Your task to perform on an android device: Open the calendar and show me this week's events? Image 0: 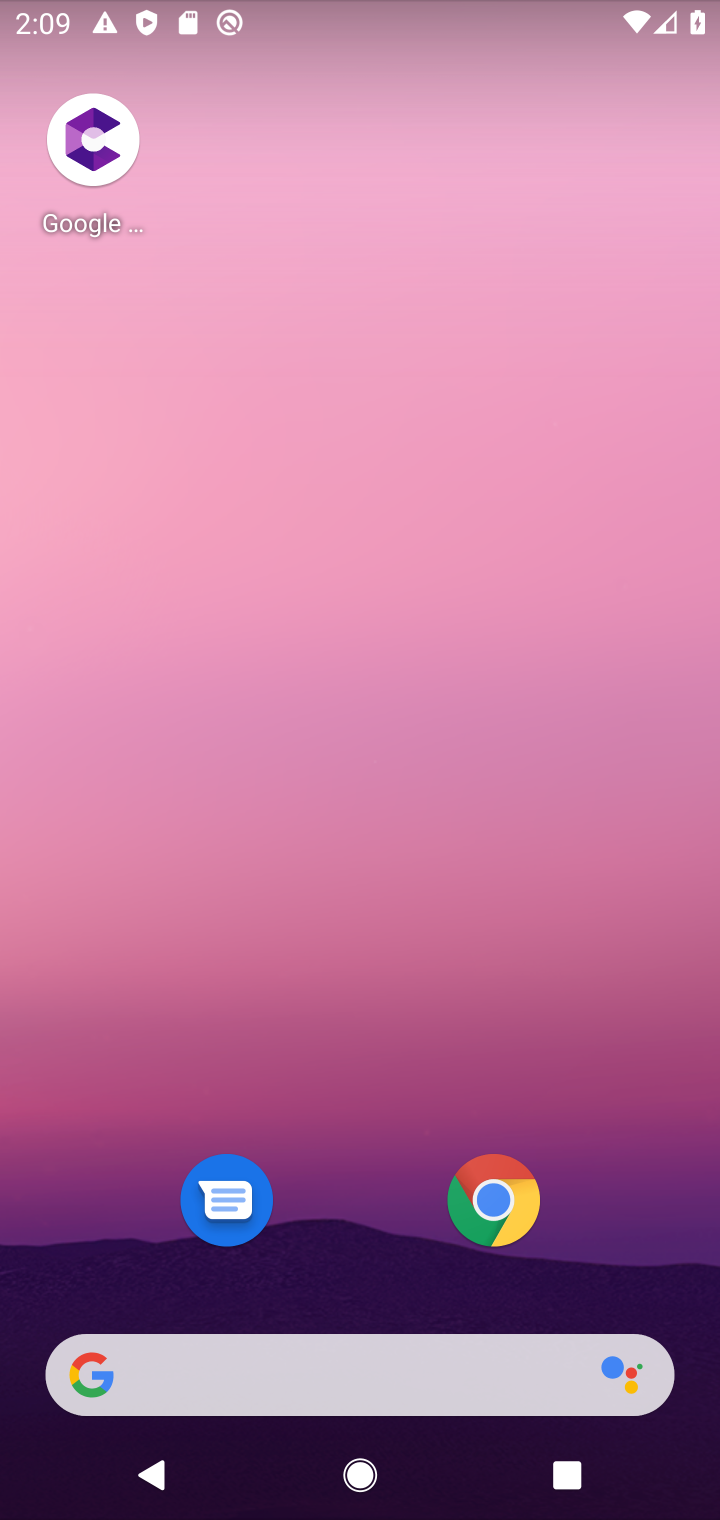
Step 0: drag from (328, 1269) to (444, 176)
Your task to perform on an android device: Open the calendar and show me this week's events? Image 1: 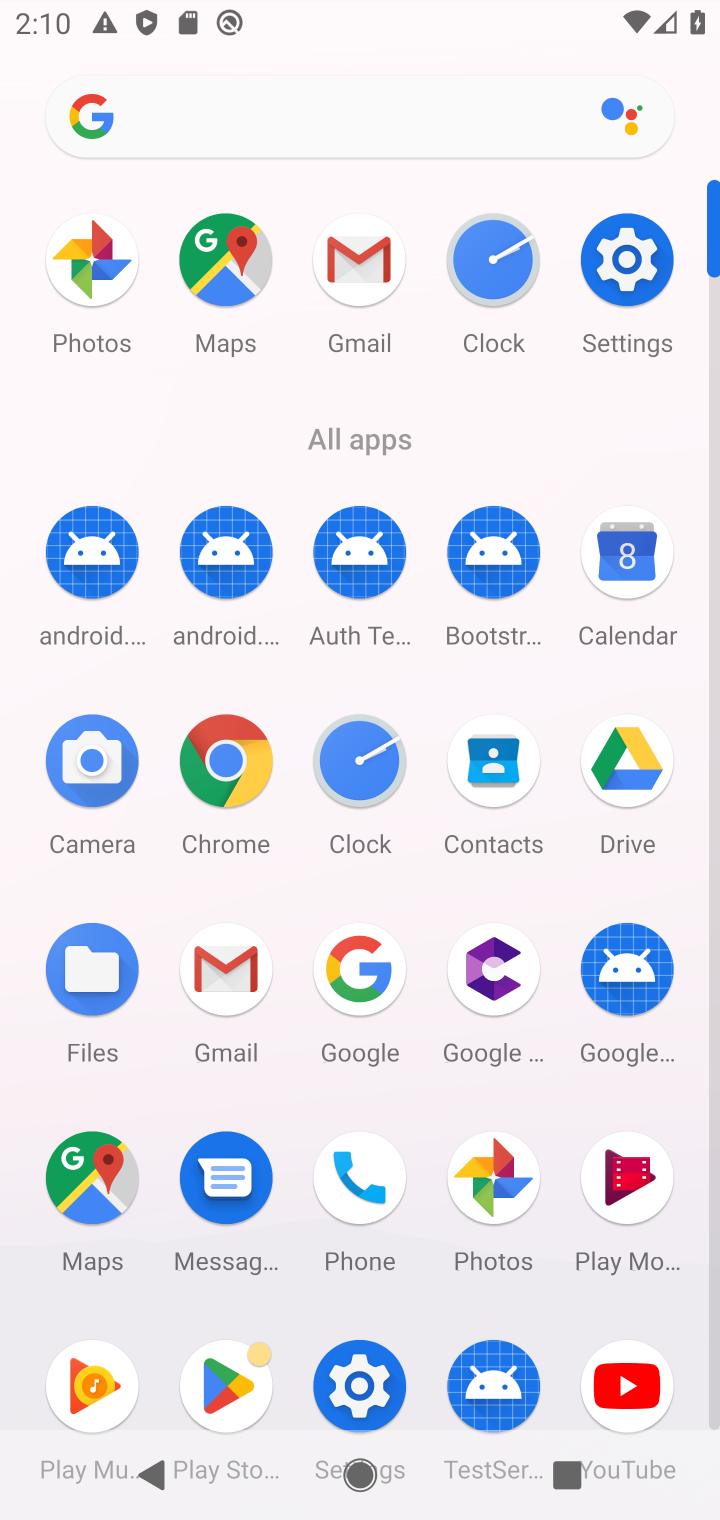
Step 1: click (625, 543)
Your task to perform on an android device: Open the calendar and show me this week's events? Image 2: 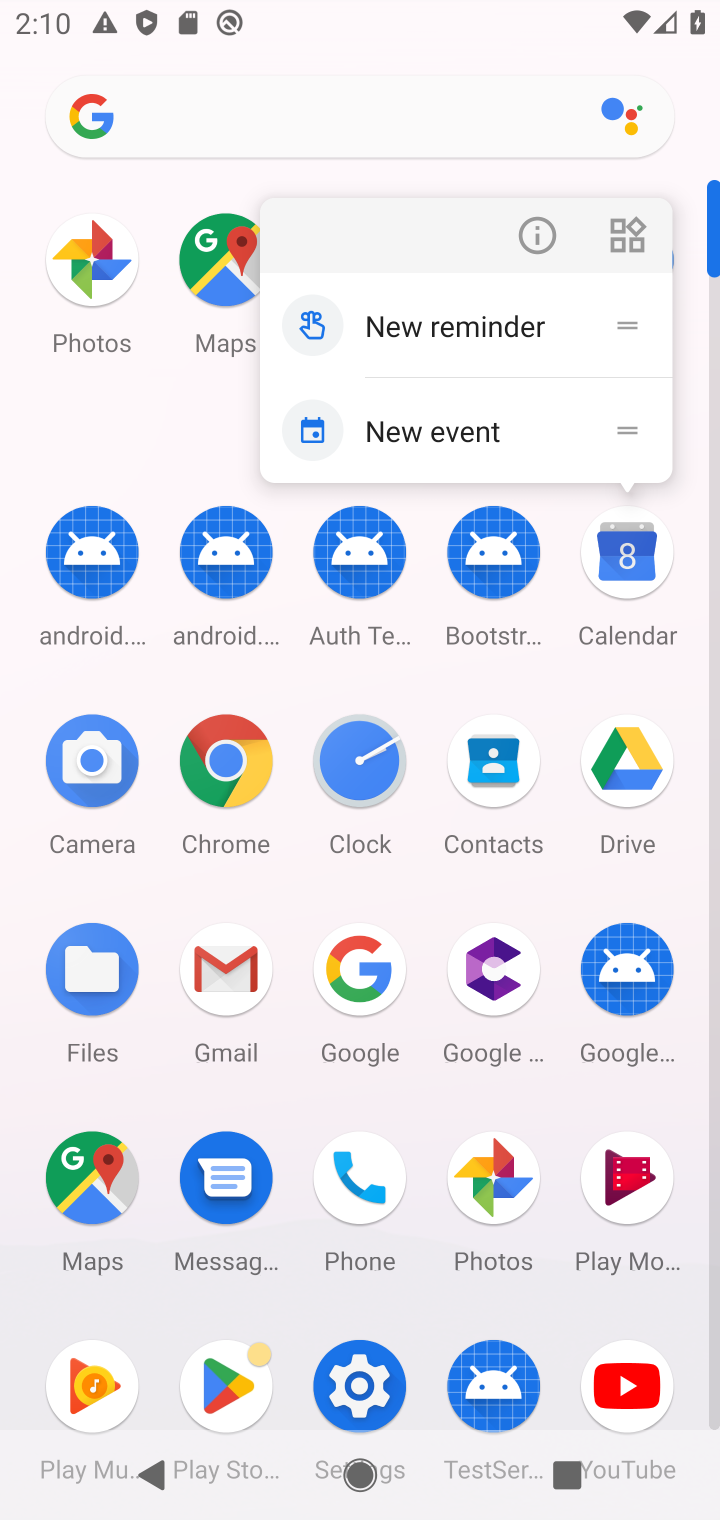
Step 2: click (636, 576)
Your task to perform on an android device: Open the calendar and show me this week's events? Image 3: 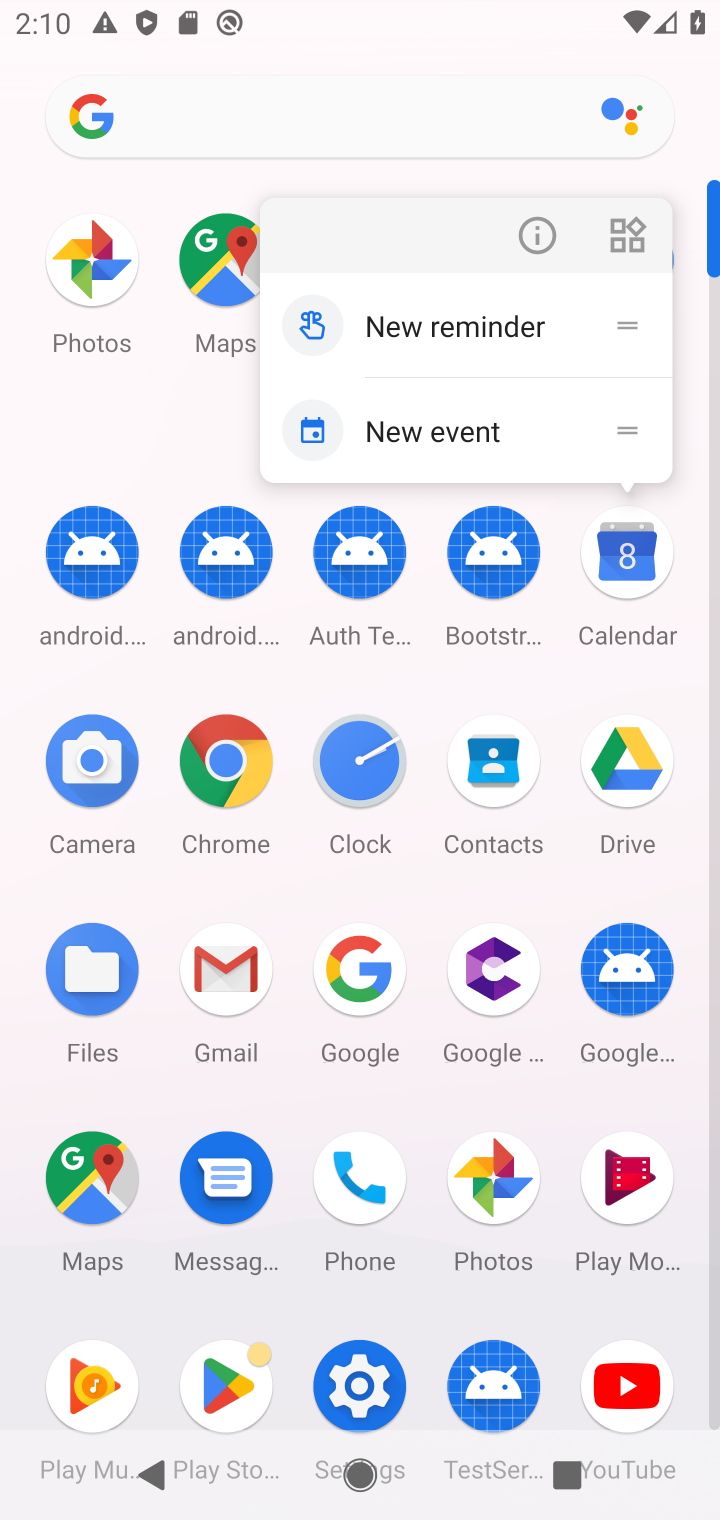
Step 3: click (636, 562)
Your task to perform on an android device: Open the calendar and show me this week's events? Image 4: 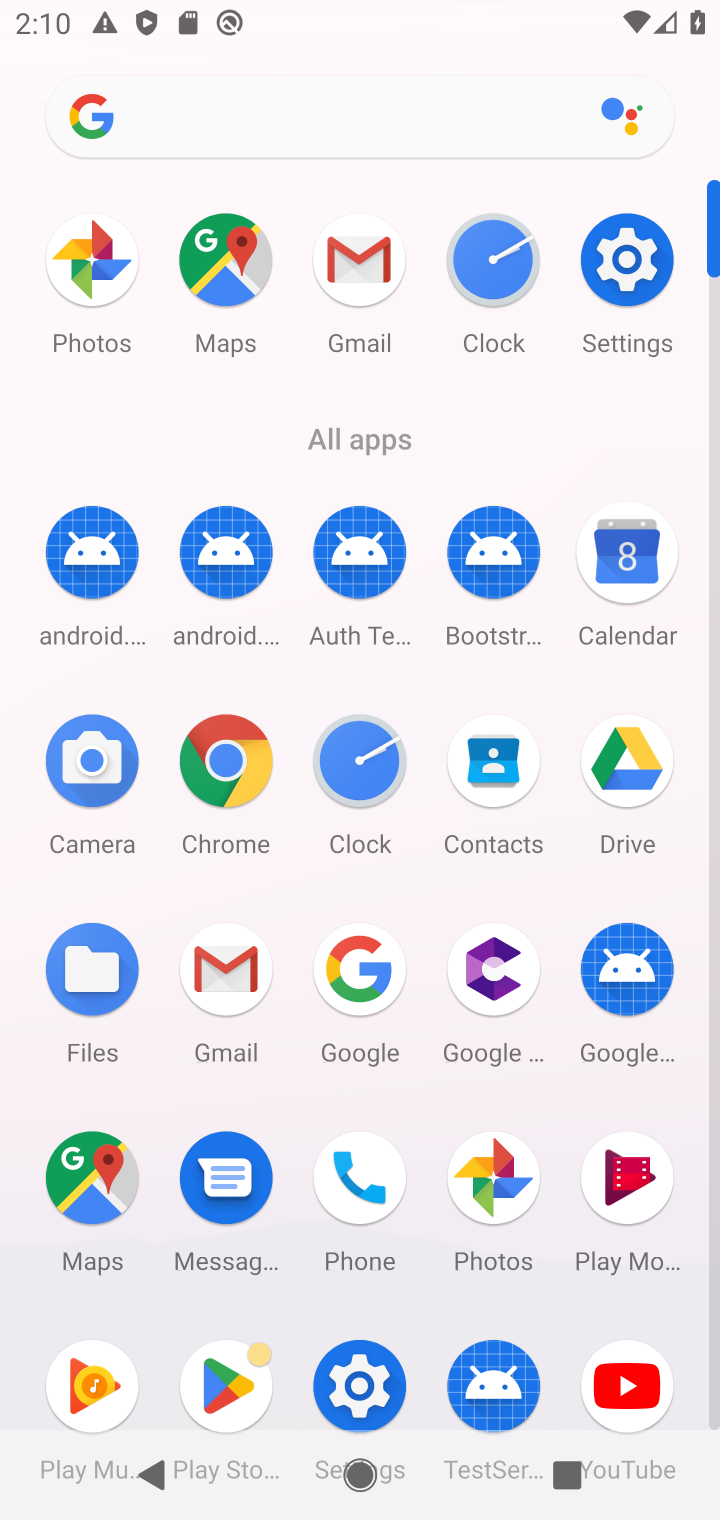
Step 4: click (641, 549)
Your task to perform on an android device: Open the calendar and show me this week's events? Image 5: 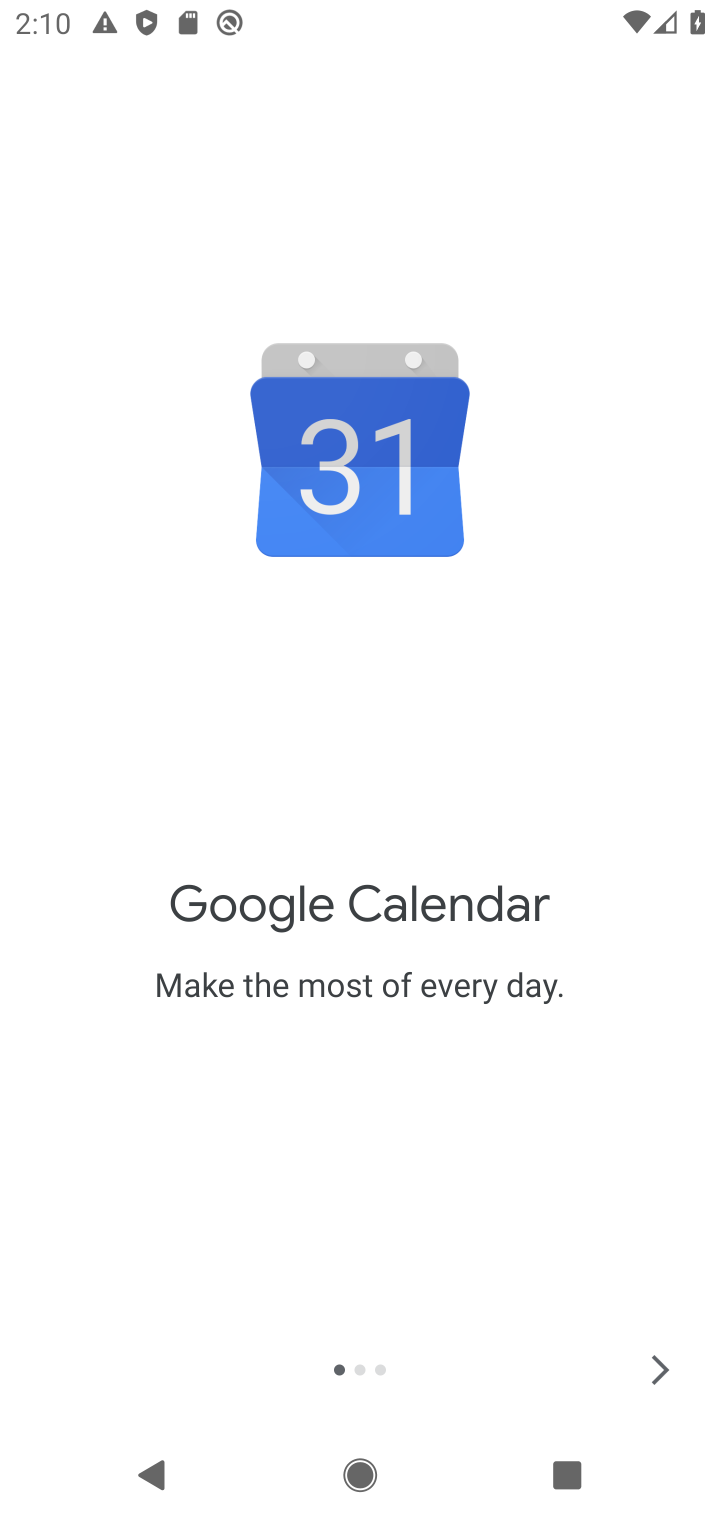
Step 5: click (638, 1371)
Your task to perform on an android device: Open the calendar and show me this week's events? Image 6: 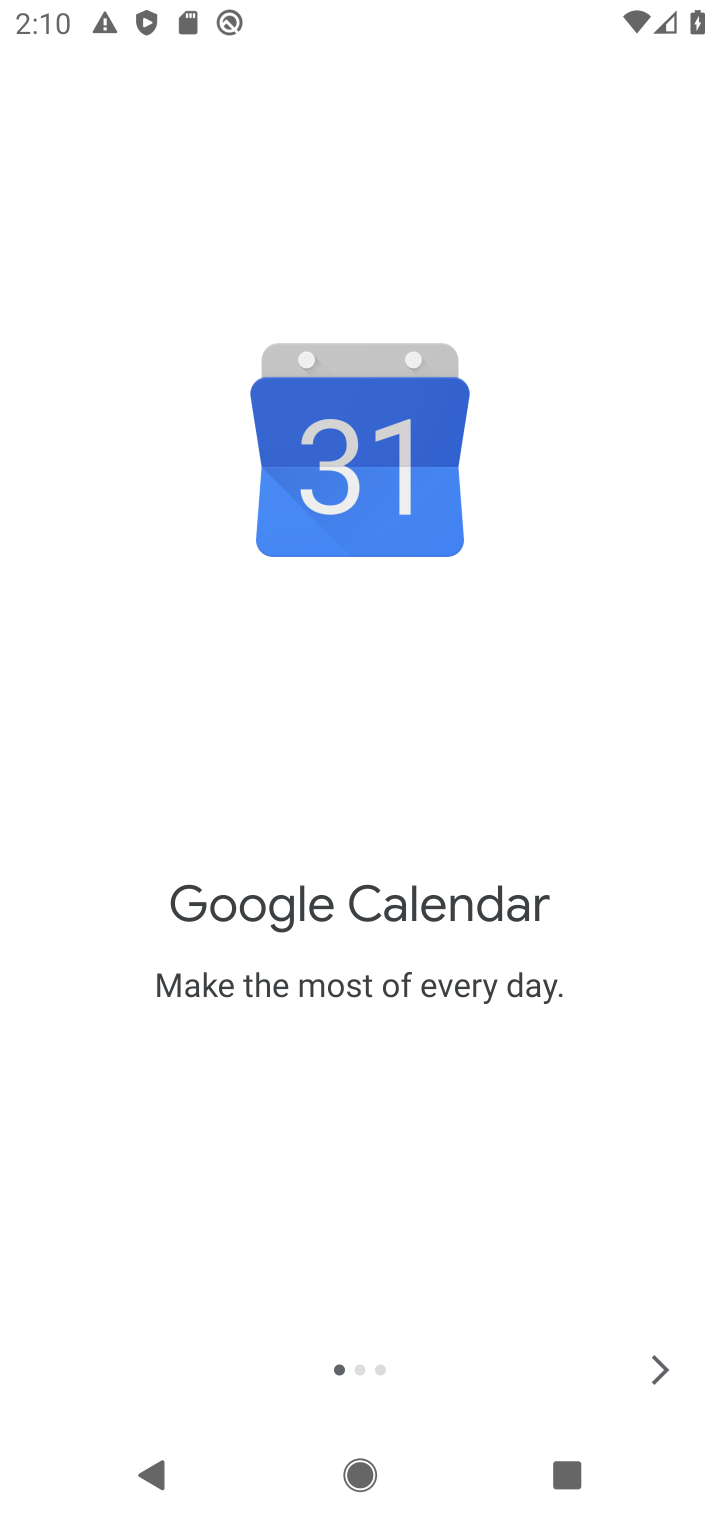
Step 6: click (638, 1371)
Your task to perform on an android device: Open the calendar and show me this week's events? Image 7: 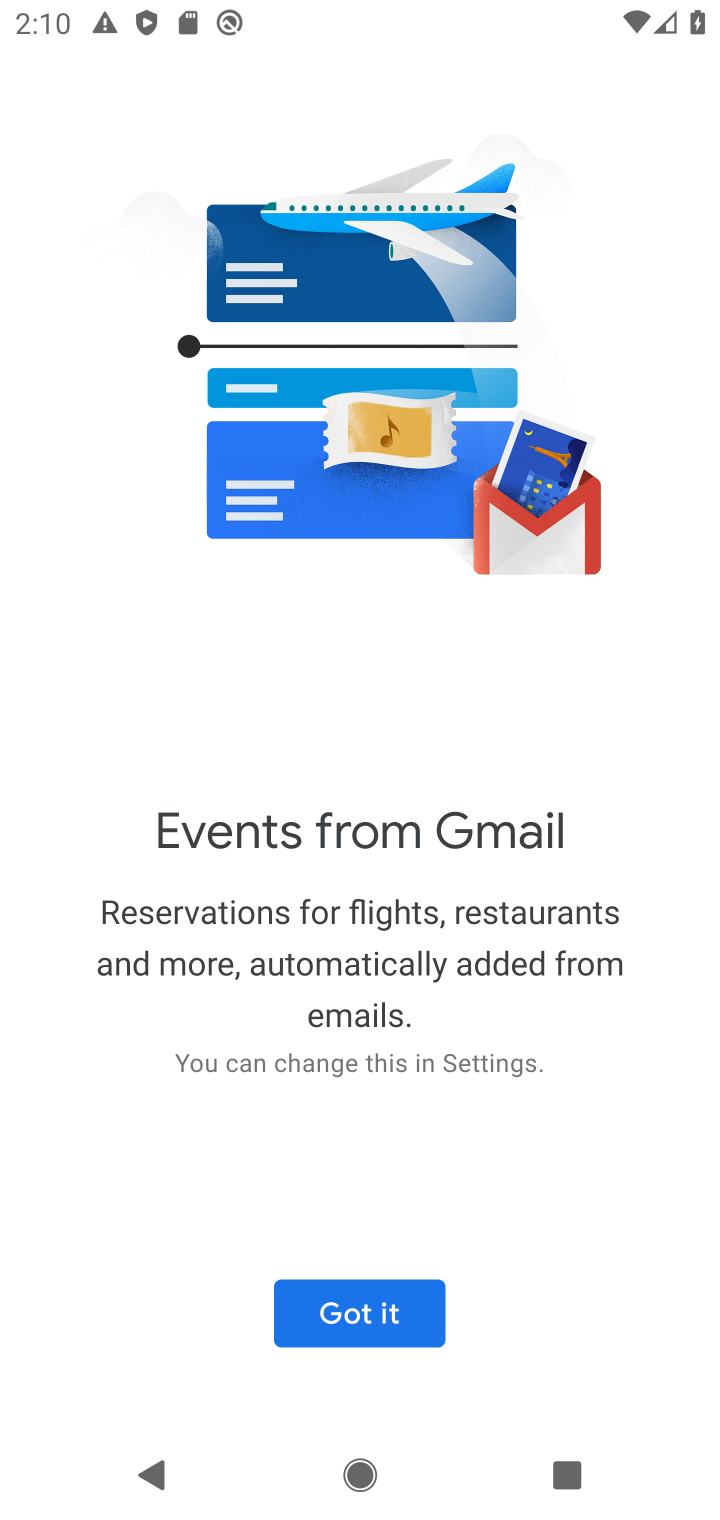
Step 7: click (649, 1371)
Your task to perform on an android device: Open the calendar and show me this week's events? Image 8: 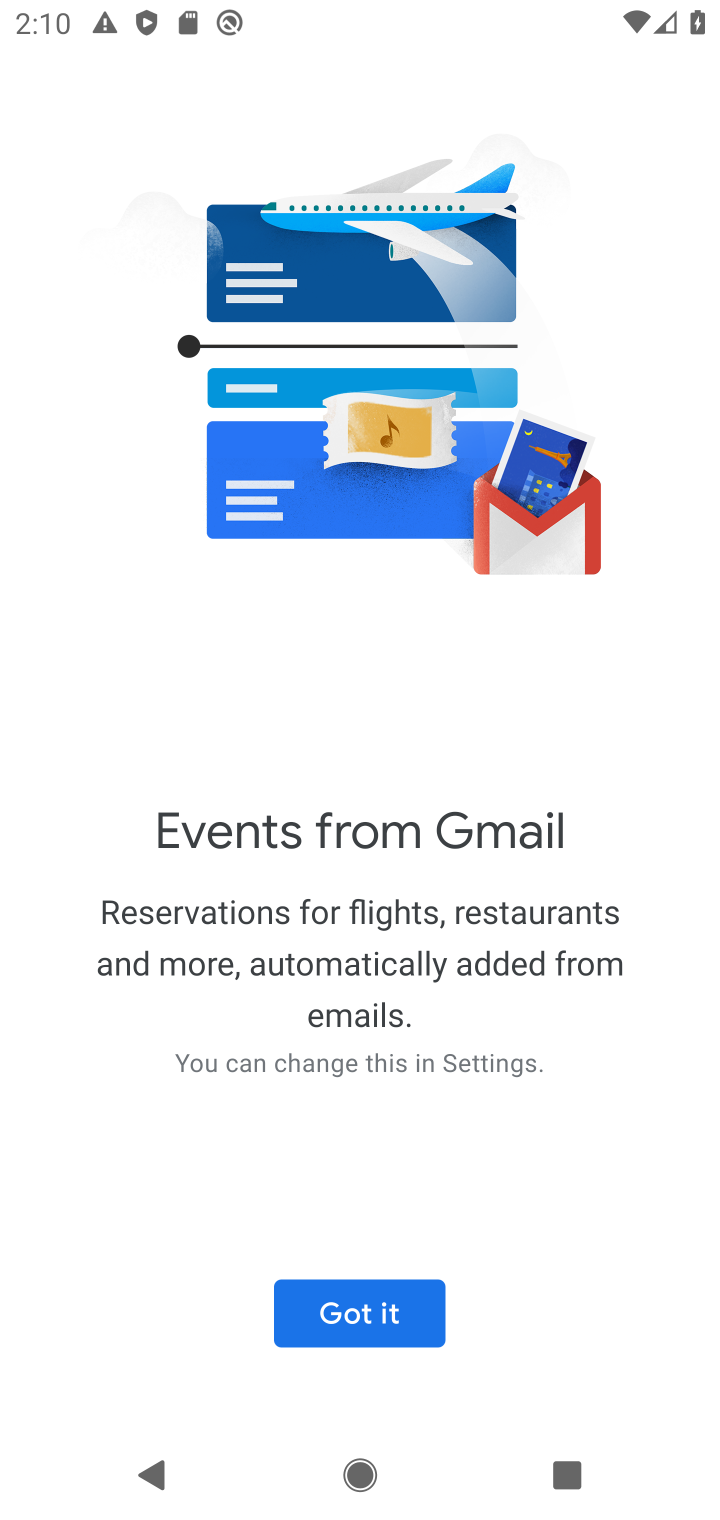
Step 8: click (434, 1297)
Your task to perform on an android device: Open the calendar and show me this week's events? Image 9: 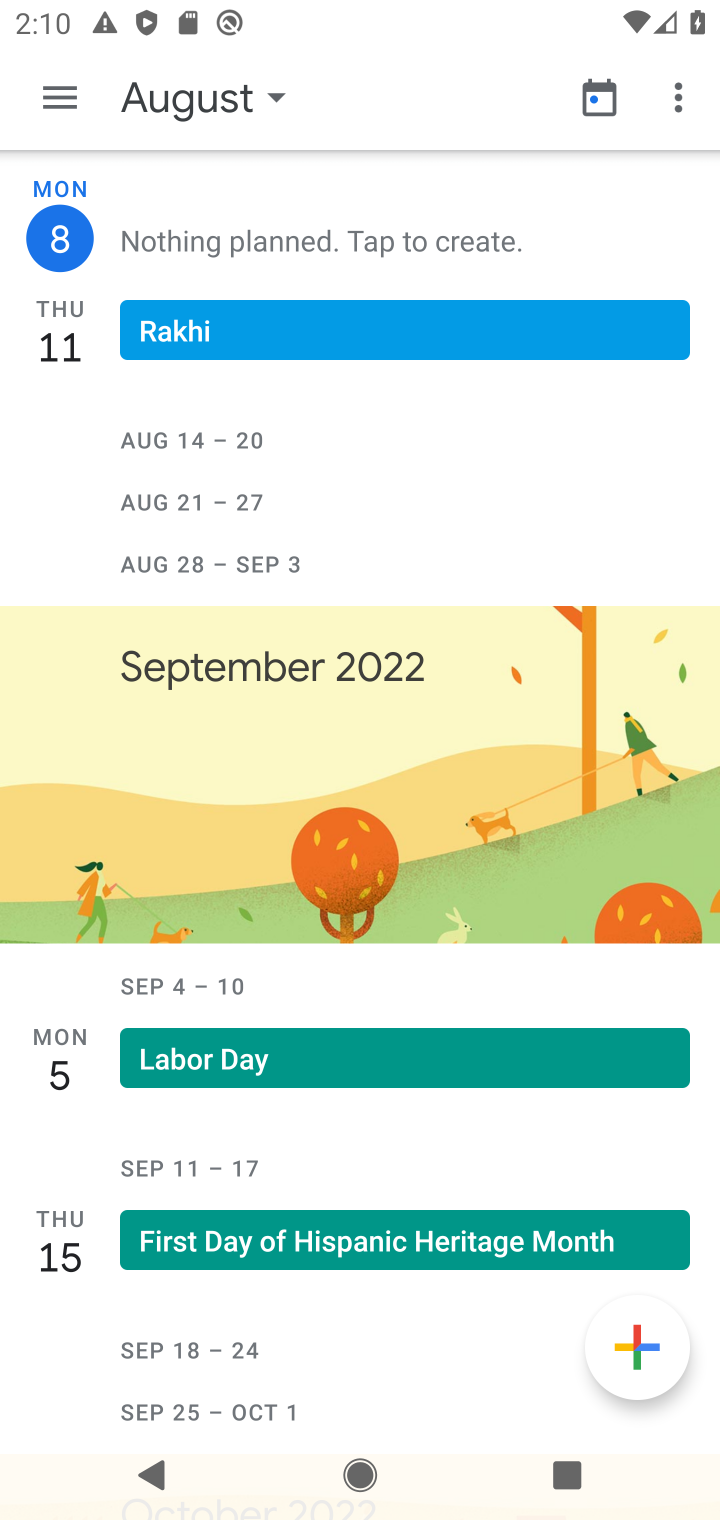
Step 9: click (257, 86)
Your task to perform on an android device: Open the calendar and show me this week's events? Image 10: 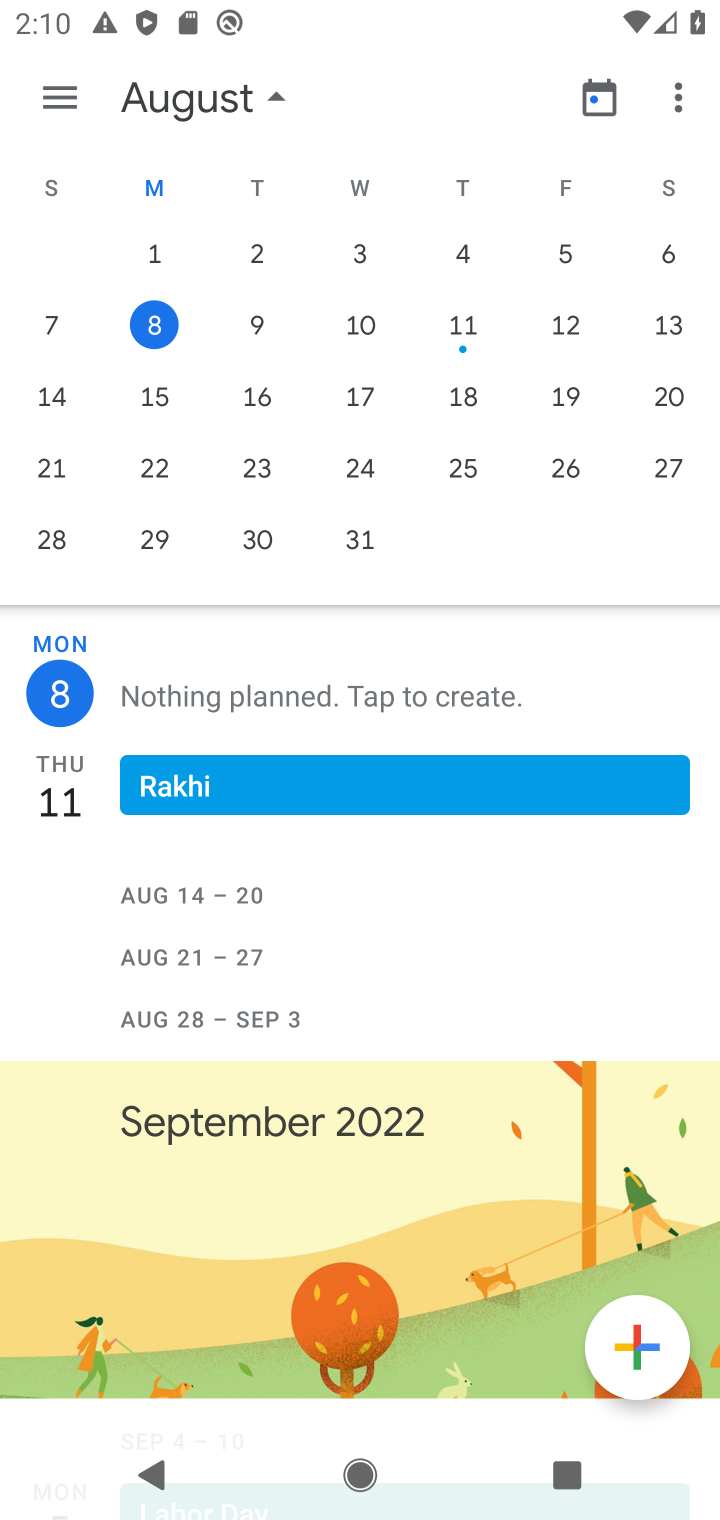
Step 10: click (162, 337)
Your task to perform on an android device: Open the calendar and show me this week's events? Image 11: 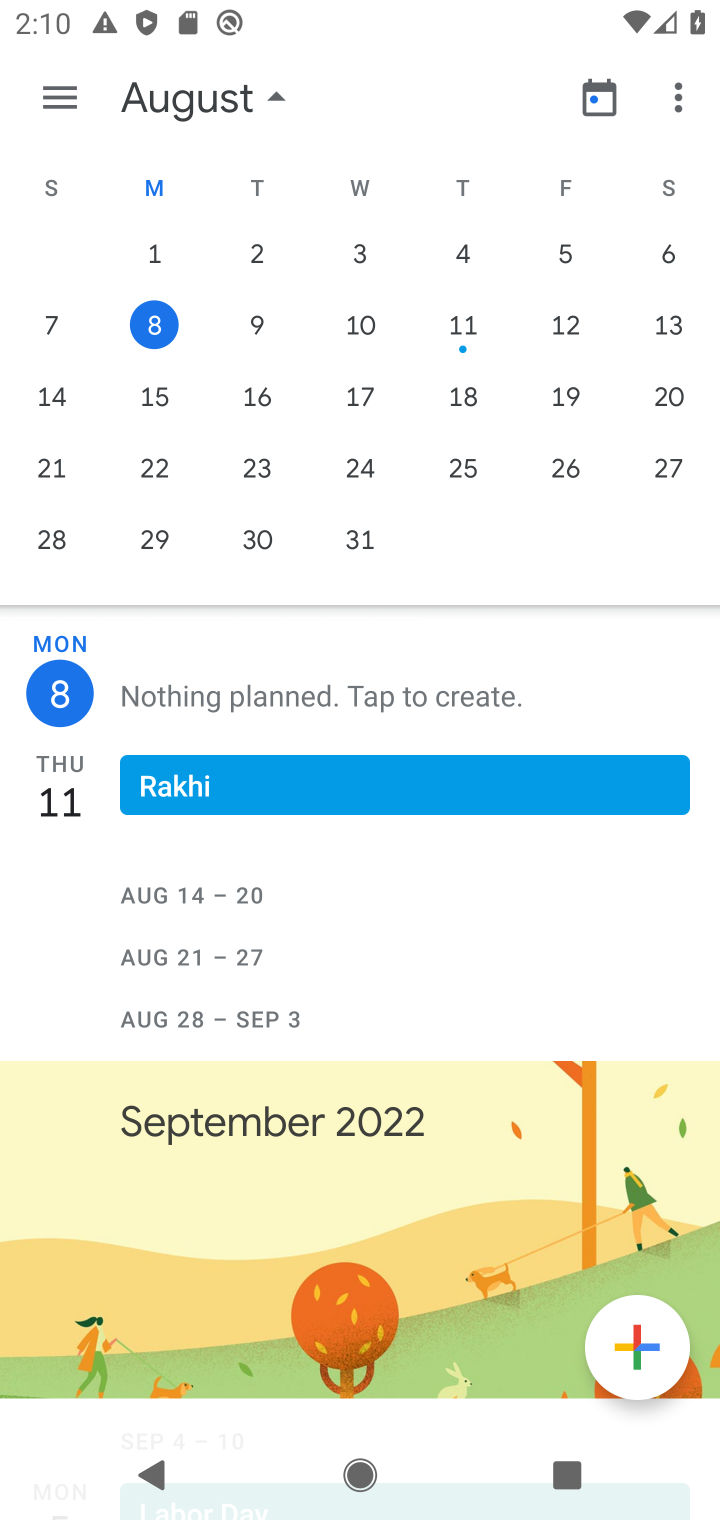
Step 11: task complete